Your task to perform on an android device: toggle show notifications on the lock screen Image 0: 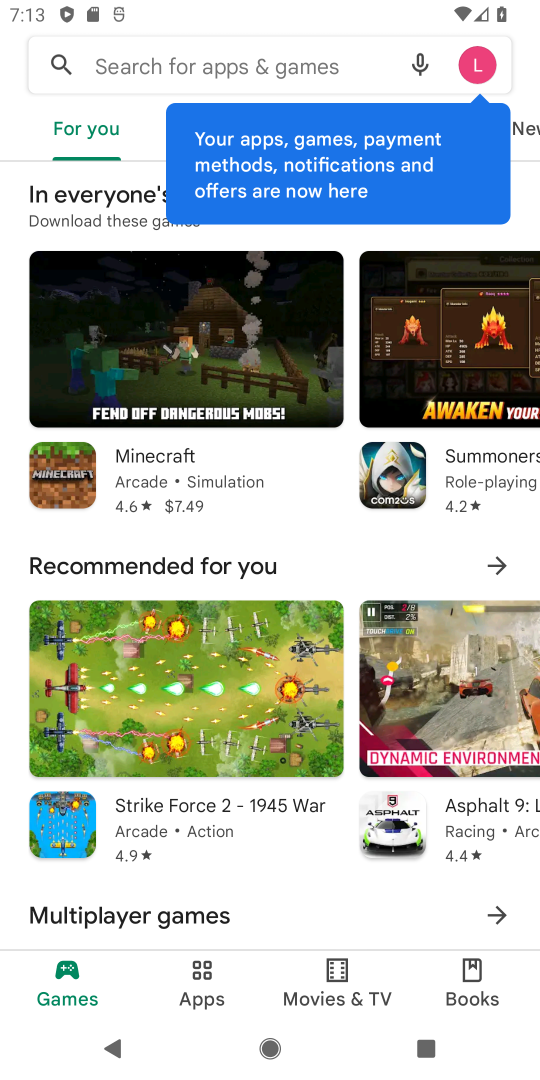
Step 0: press home button
Your task to perform on an android device: toggle show notifications on the lock screen Image 1: 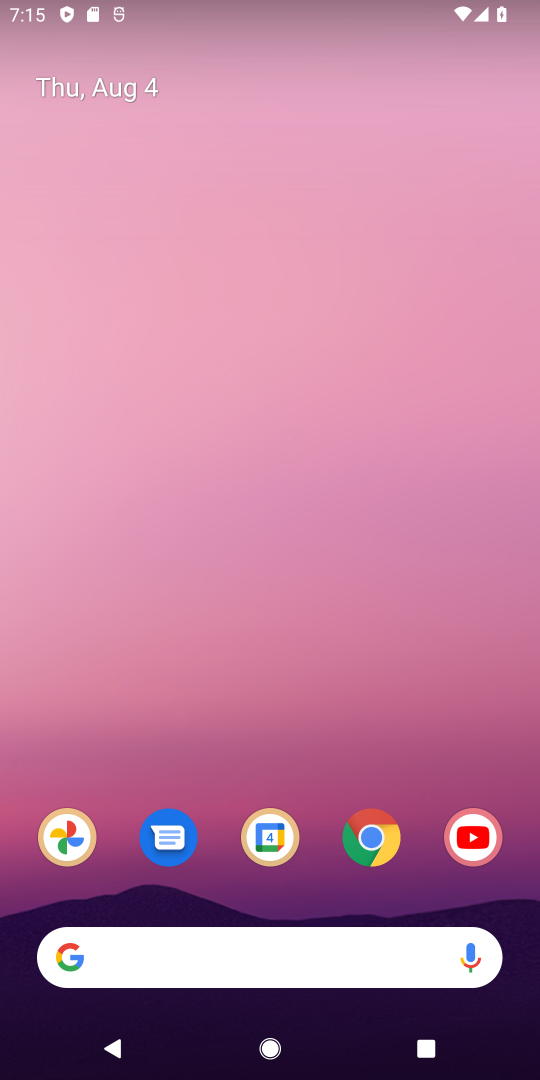
Step 1: drag from (254, 694) to (241, 364)
Your task to perform on an android device: toggle show notifications on the lock screen Image 2: 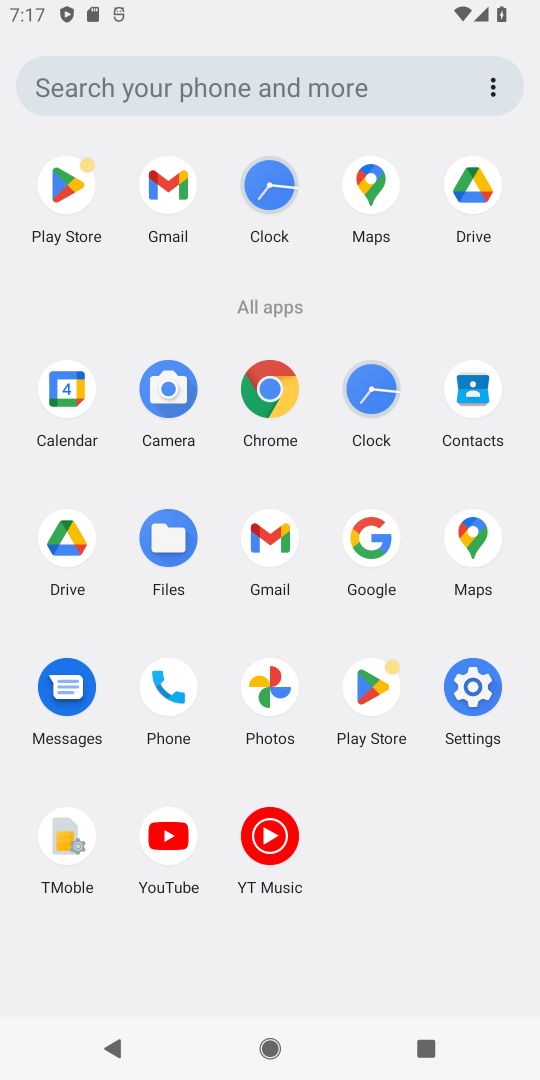
Step 2: click (463, 693)
Your task to perform on an android device: toggle show notifications on the lock screen Image 3: 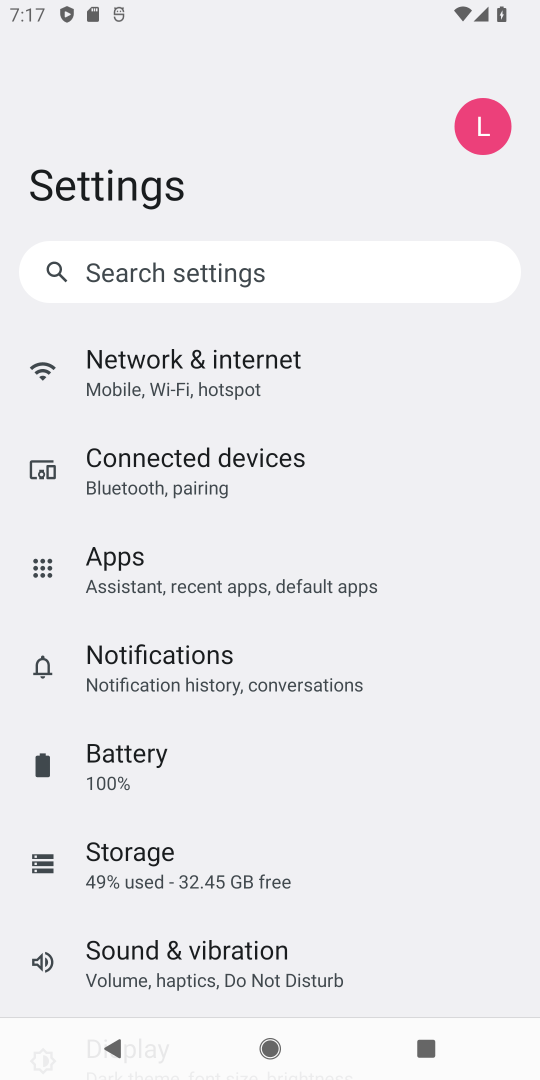
Step 3: click (193, 674)
Your task to perform on an android device: toggle show notifications on the lock screen Image 4: 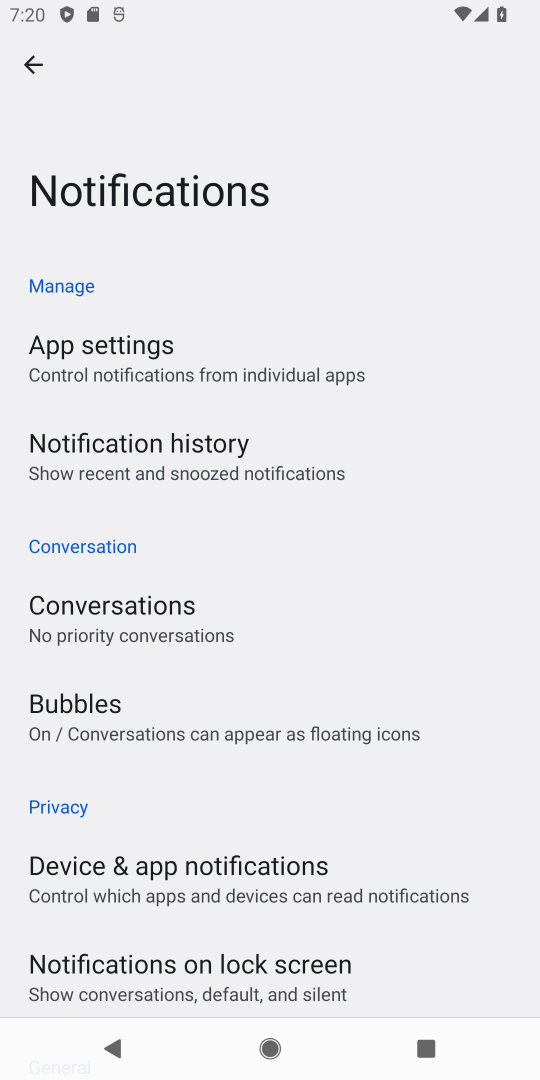
Step 4: task complete